Your task to perform on an android device: Go to Reddit.com Image 0: 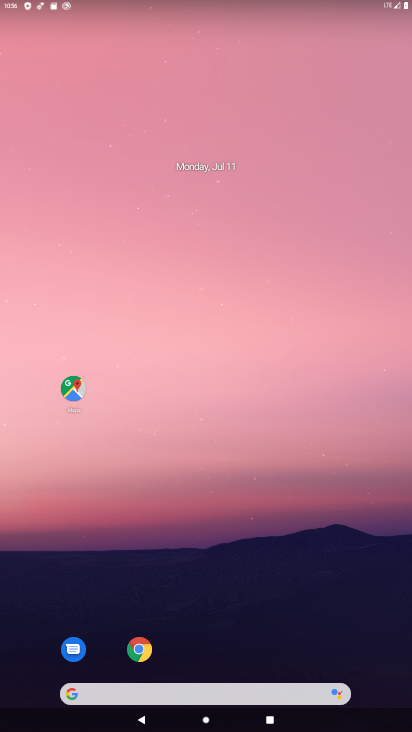
Step 0: drag from (310, 613) to (210, 55)
Your task to perform on an android device: Go to Reddit.com Image 1: 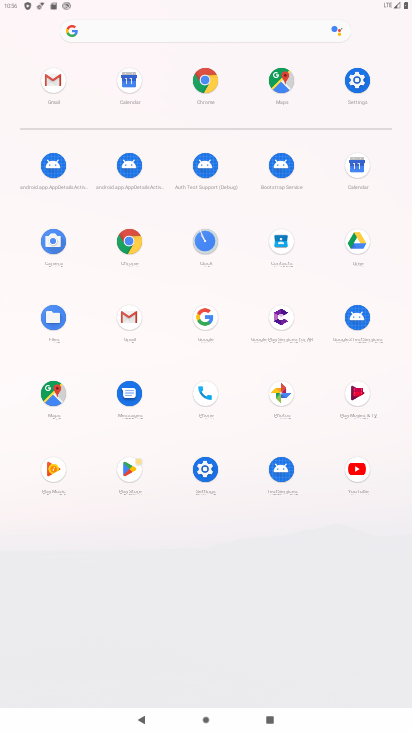
Step 1: click (207, 79)
Your task to perform on an android device: Go to Reddit.com Image 2: 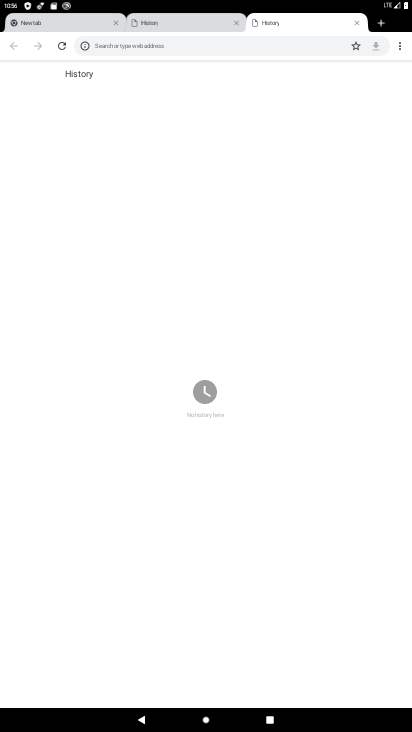
Step 2: click (177, 45)
Your task to perform on an android device: Go to Reddit.com Image 3: 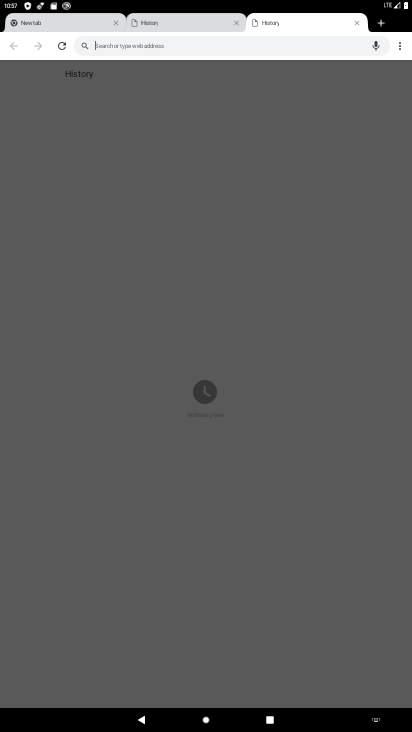
Step 3: type "reddit.com"
Your task to perform on an android device: Go to Reddit.com Image 4: 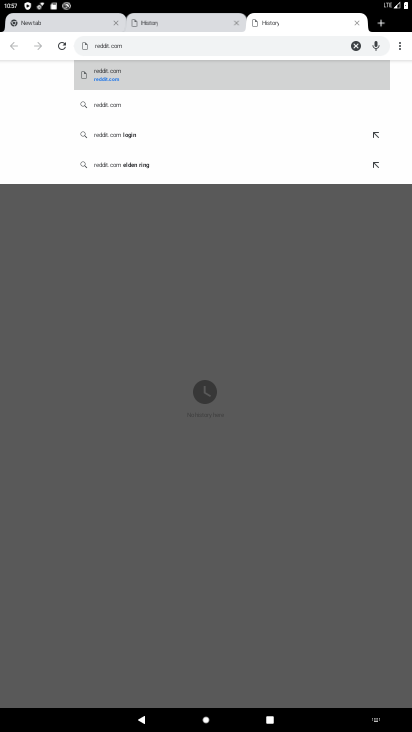
Step 4: click (113, 81)
Your task to perform on an android device: Go to Reddit.com Image 5: 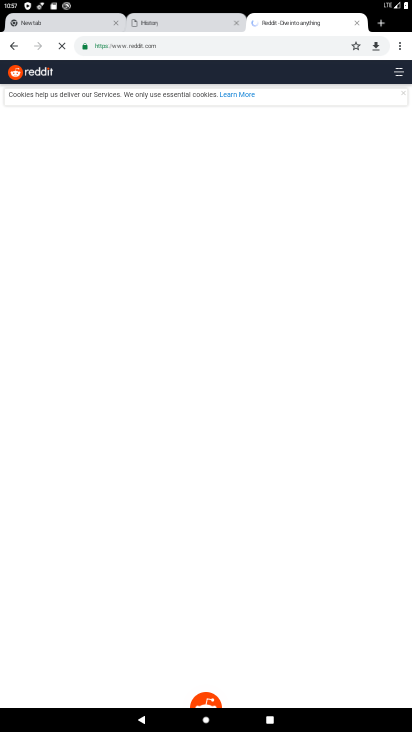
Step 5: task complete